Your task to perform on an android device: check android version Image 0: 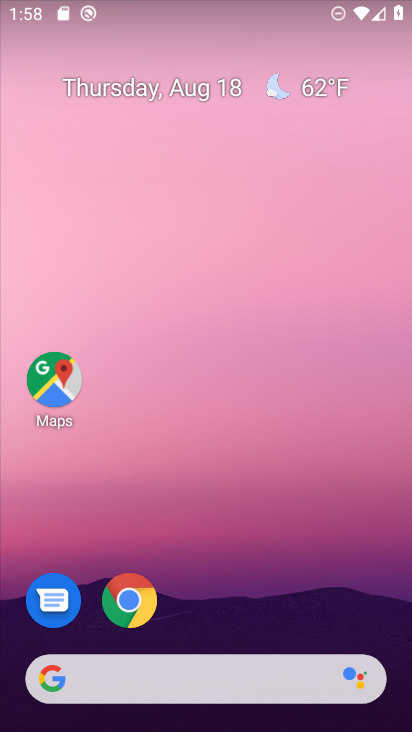
Step 0: drag from (239, 559) to (204, 29)
Your task to perform on an android device: check android version Image 1: 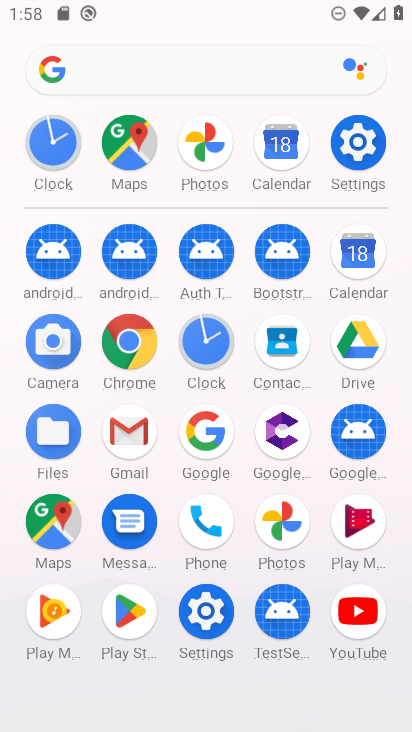
Step 1: click (357, 139)
Your task to perform on an android device: check android version Image 2: 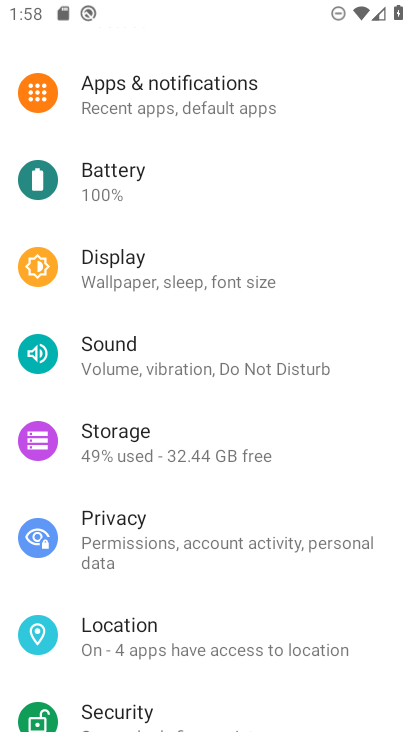
Step 2: drag from (193, 685) to (163, 268)
Your task to perform on an android device: check android version Image 3: 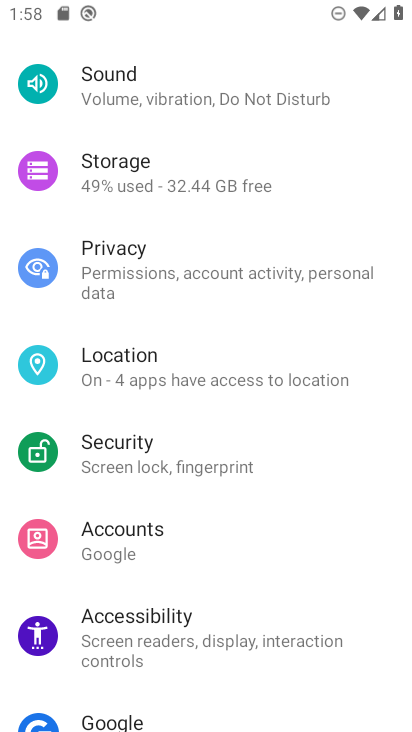
Step 3: drag from (216, 688) to (201, 344)
Your task to perform on an android device: check android version Image 4: 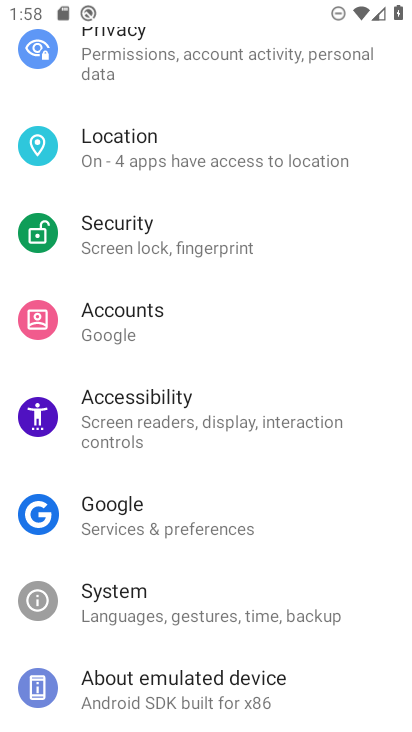
Step 4: click (147, 686)
Your task to perform on an android device: check android version Image 5: 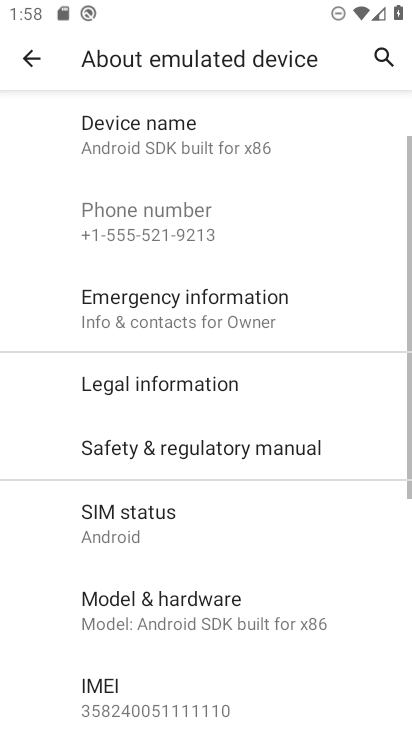
Step 5: drag from (194, 666) to (182, 441)
Your task to perform on an android device: check android version Image 6: 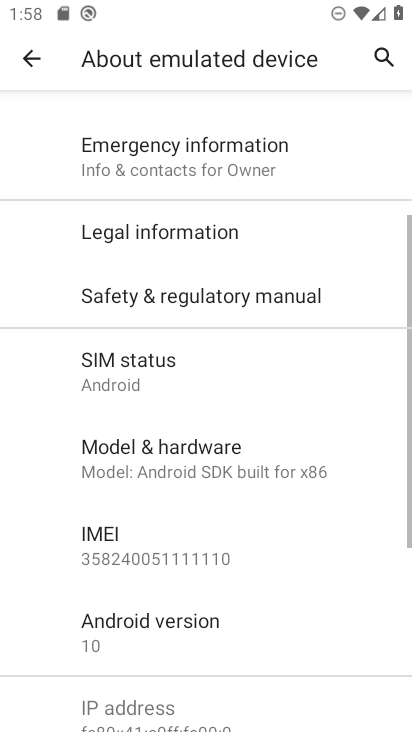
Step 6: click (112, 632)
Your task to perform on an android device: check android version Image 7: 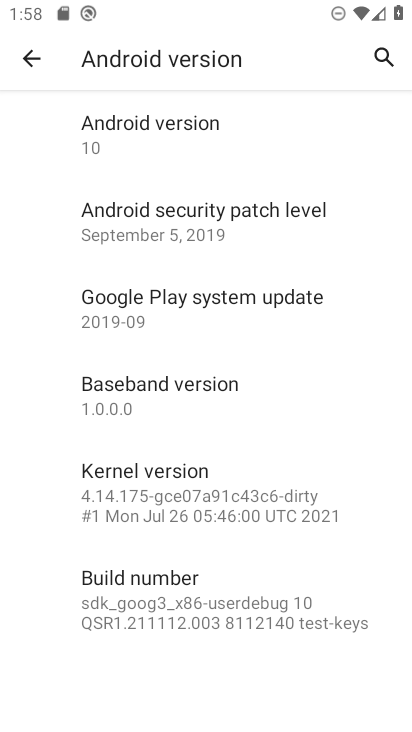
Step 7: task complete